Your task to perform on an android device: Do I have any events this weekend? Image 0: 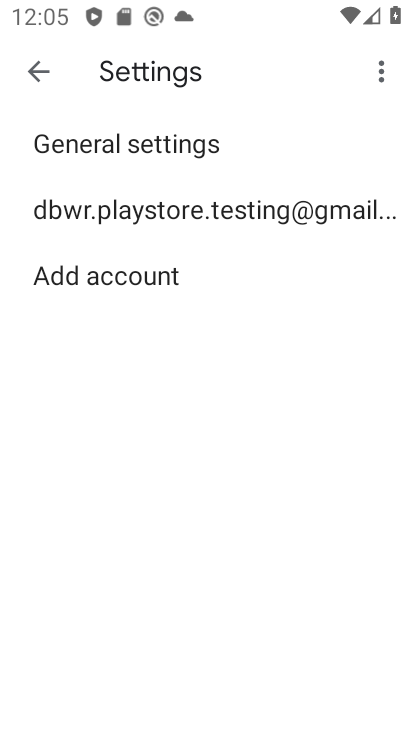
Step 0: press home button
Your task to perform on an android device: Do I have any events this weekend? Image 1: 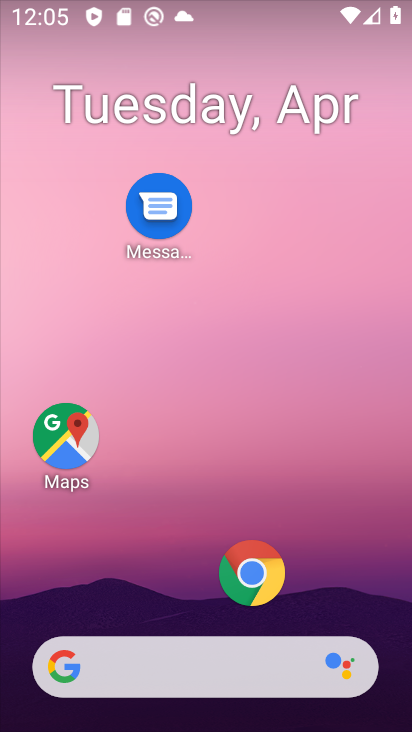
Step 1: drag from (208, 622) to (207, 75)
Your task to perform on an android device: Do I have any events this weekend? Image 2: 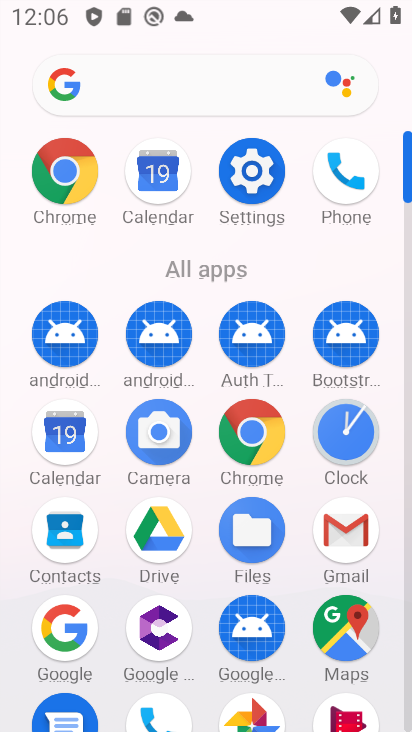
Step 2: click (84, 441)
Your task to perform on an android device: Do I have any events this weekend? Image 3: 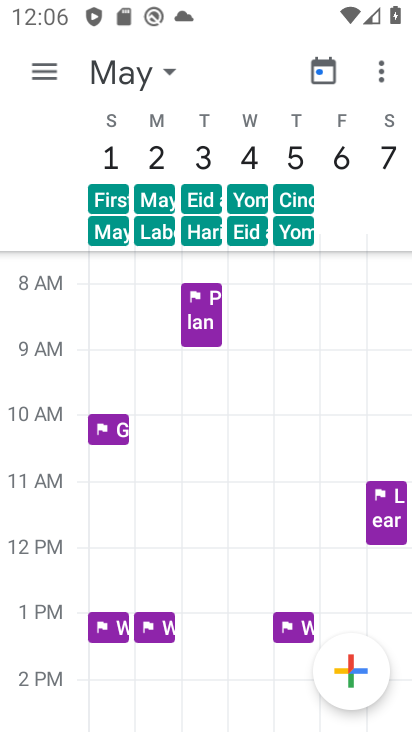
Step 3: click (17, 69)
Your task to perform on an android device: Do I have any events this weekend? Image 4: 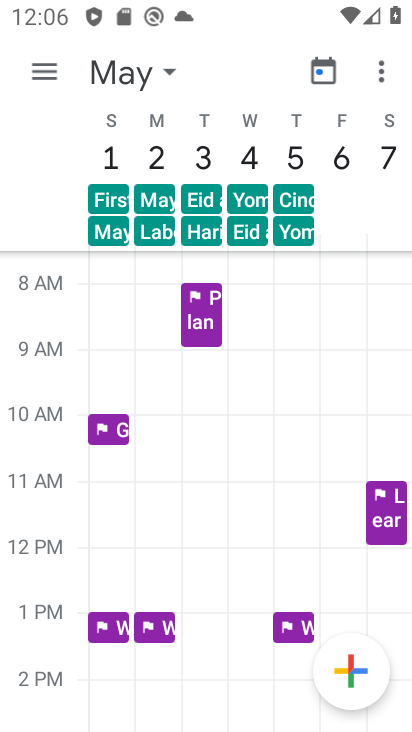
Step 4: click (36, 70)
Your task to perform on an android device: Do I have any events this weekend? Image 5: 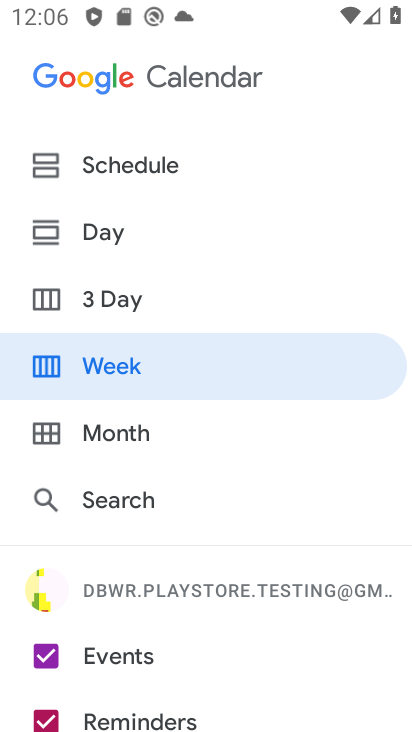
Step 5: click (124, 368)
Your task to perform on an android device: Do I have any events this weekend? Image 6: 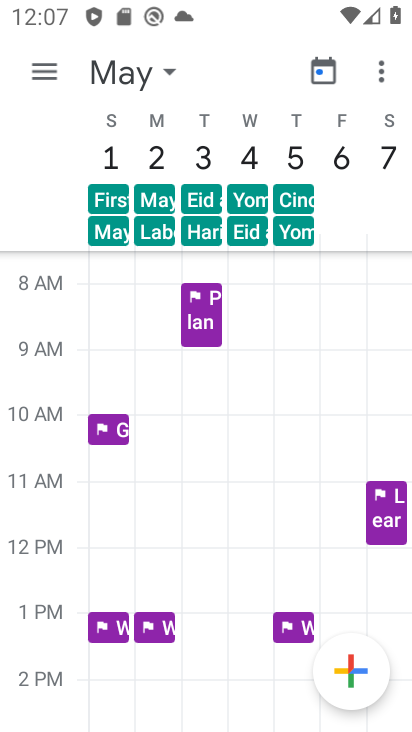
Step 6: task complete